Your task to perform on an android device: Open Maps and search for coffee Image 0: 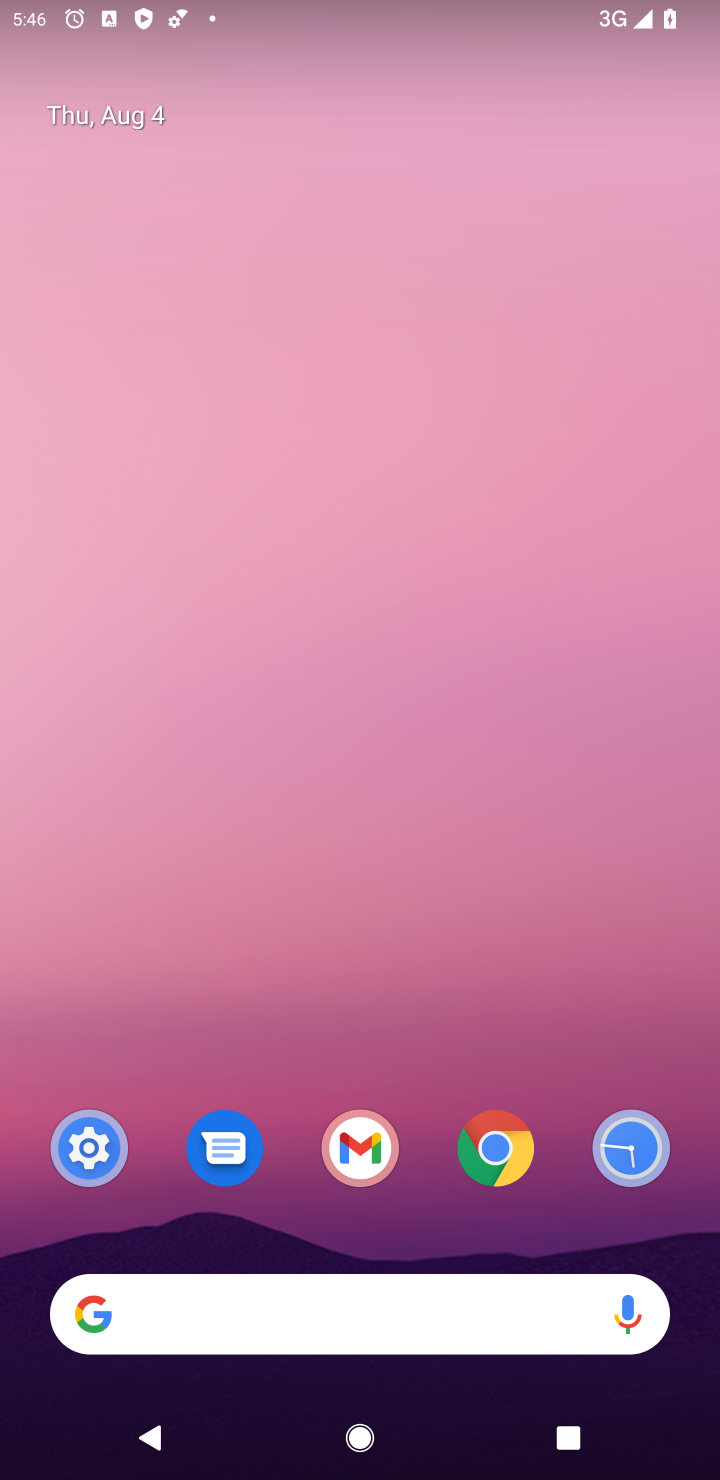
Step 0: drag from (424, 1205) to (442, 143)
Your task to perform on an android device: Open Maps and search for coffee Image 1: 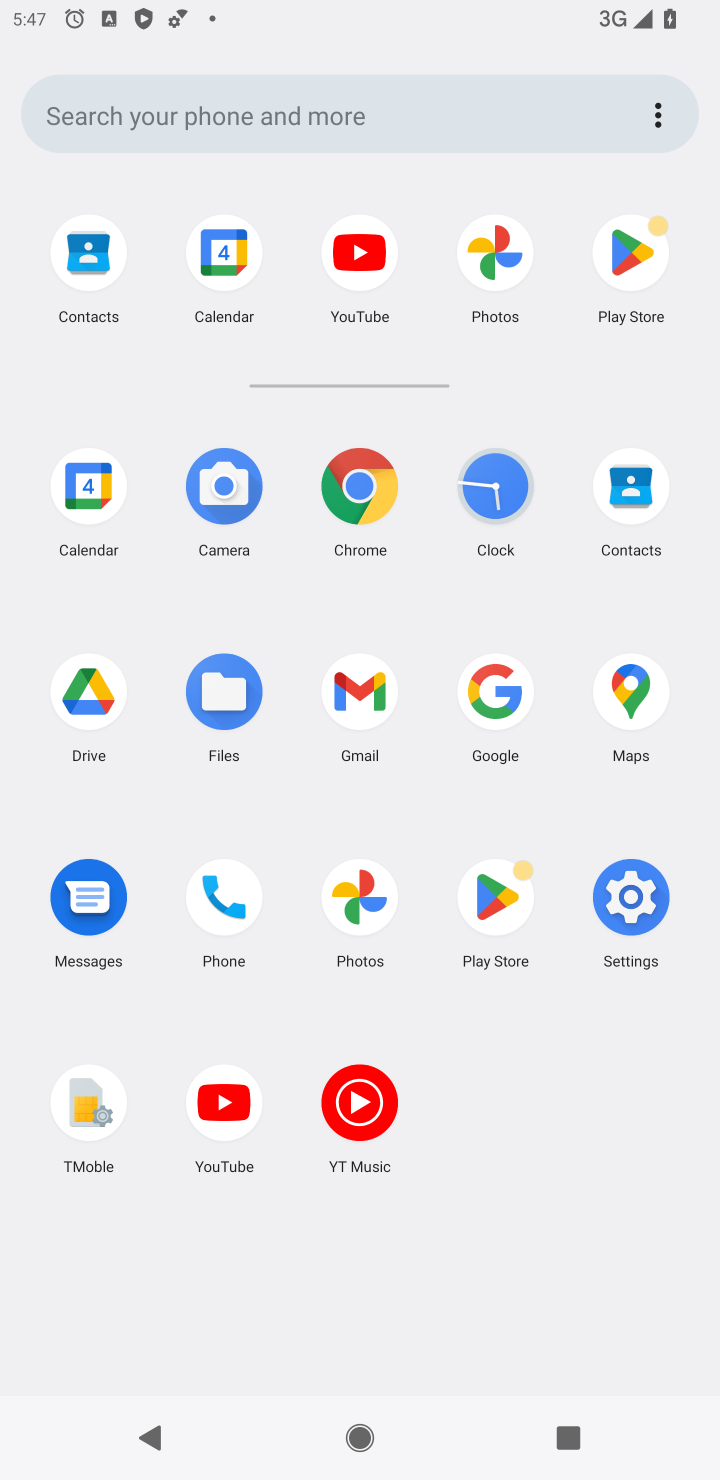
Step 1: click (628, 683)
Your task to perform on an android device: Open Maps and search for coffee Image 2: 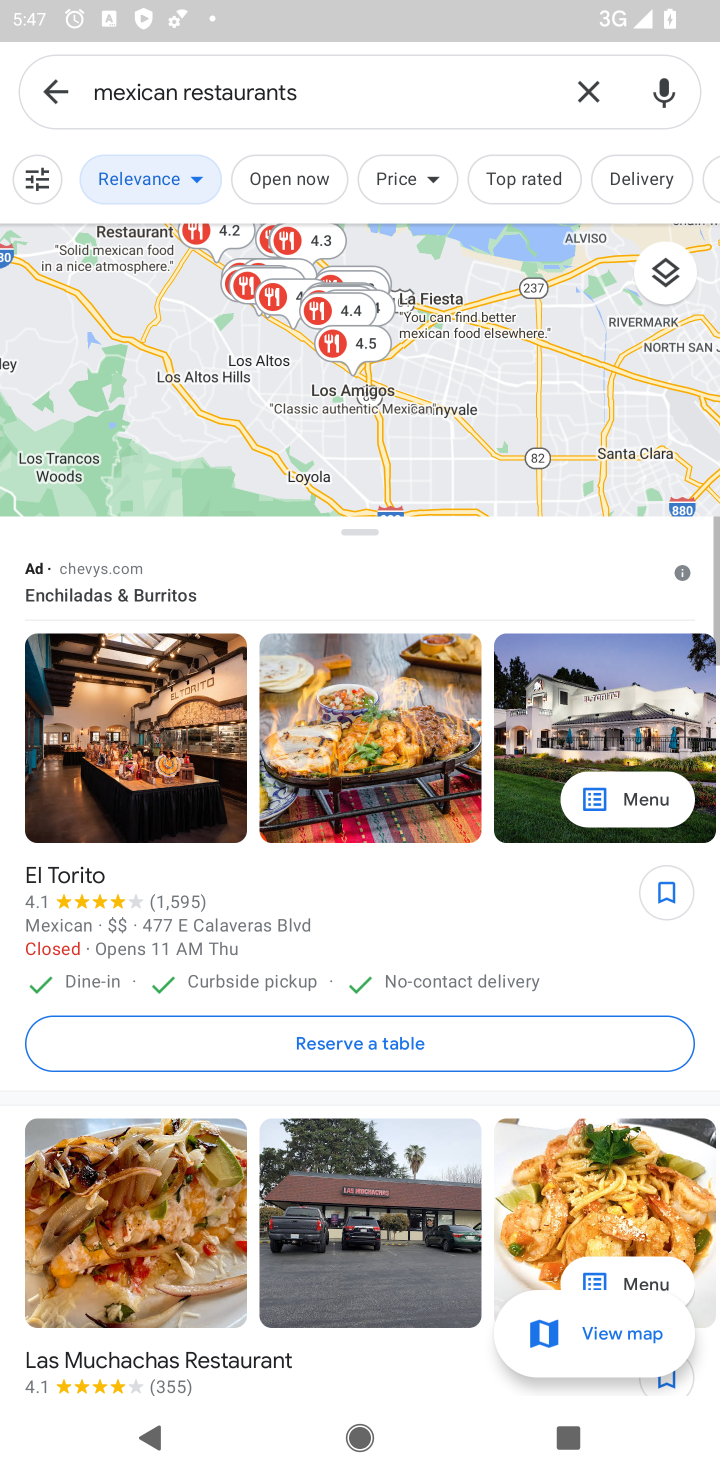
Step 2: click (580, 91)
Your task to perform on an android device: Open Maps and search for coffee Image 3: 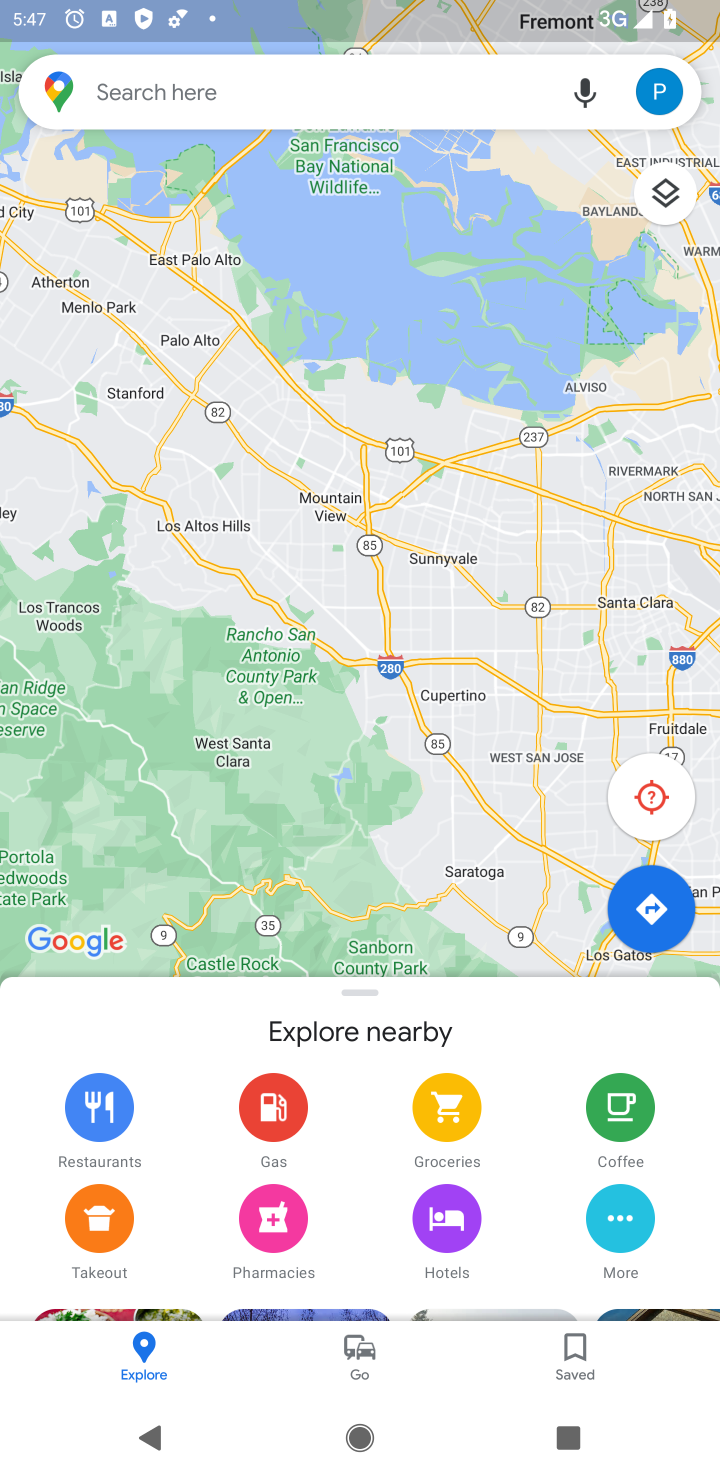
Step 3: click (176, 84)
Your task to perform on an android device: Open Maps and search for coffee Image 4: 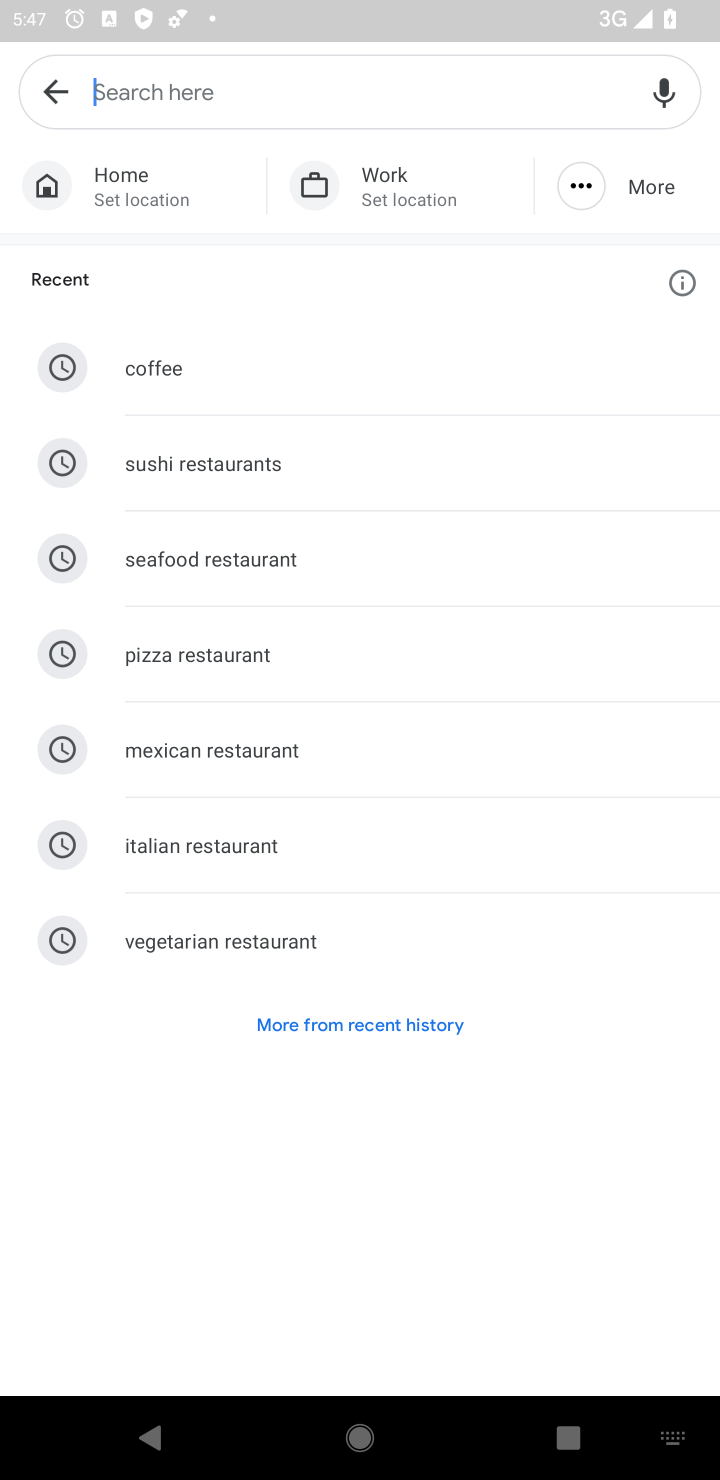
Step 4: type "coffee"
Your task to perform on an android device: Open Maps and search for coffee Image 5: 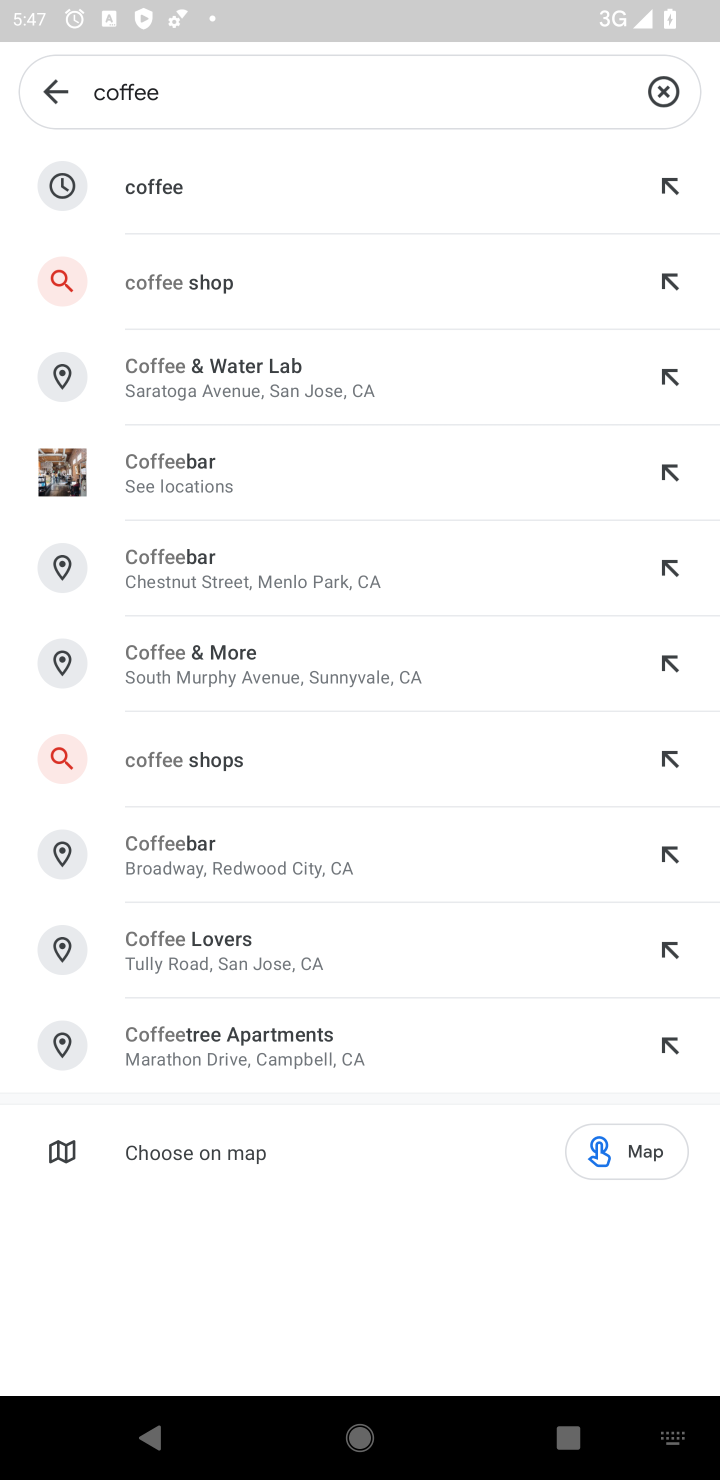
Step 5: click (162, 175)
Your task to perform on an android device: Open Maps and search for coffee Image 6: 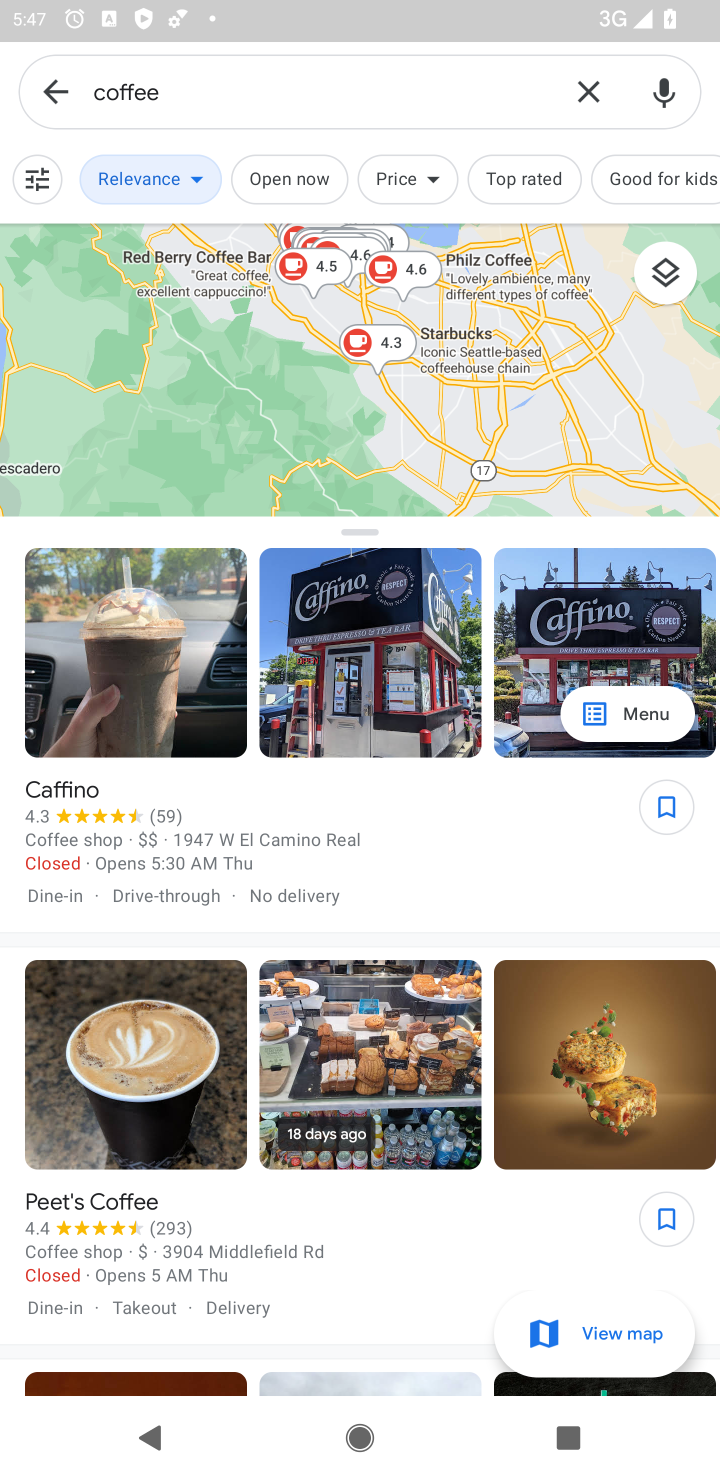
Step 6: task complete